Your task to perform on an android device: Is it going to rain this weekend? Image 0: 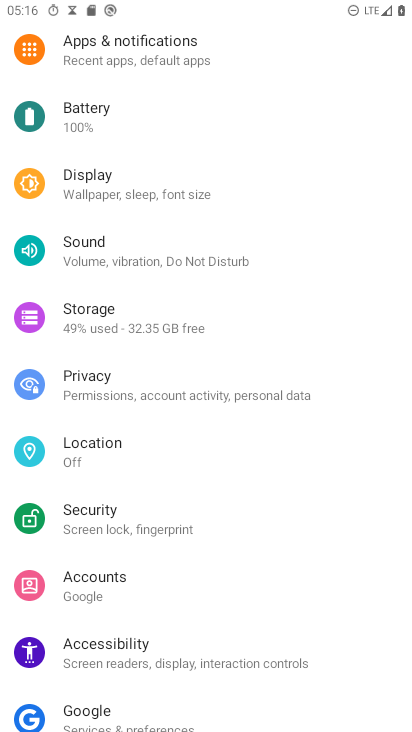
Step 0: press home button
Your task to perform on an android device: Is it going to rain this weekend? Image 1: 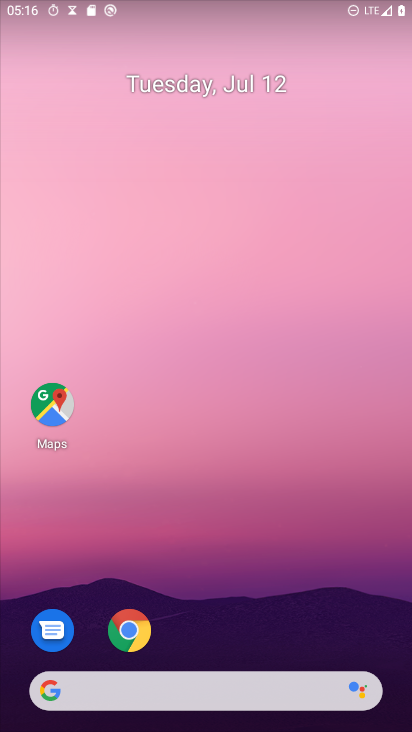
Step 1: drag from (134, 677) to (143, 4)
Your task to perform on an android device: Is it going to rain this weekend? Image 2: 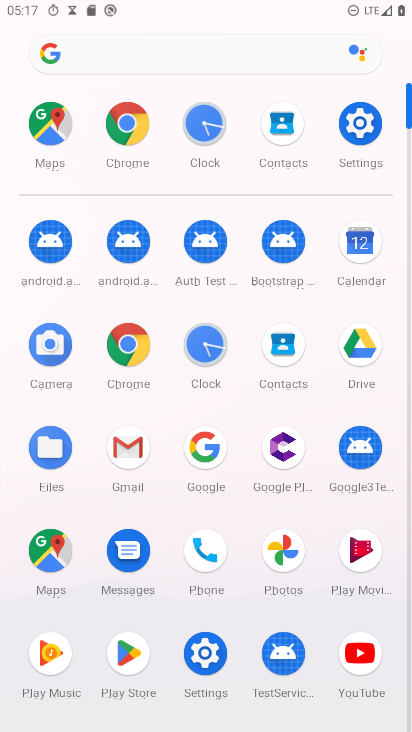
Step 2: click (127, 339)
Your task to perform on an android device: Is it going to rain this weekend? Image 3: 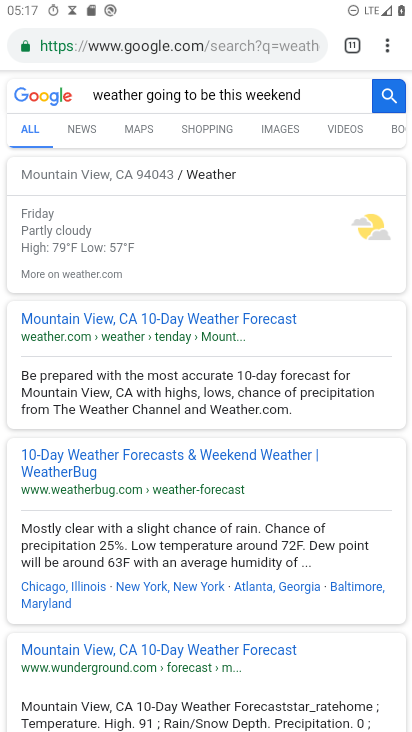
Step 3: task complete